Your task to perform on an android device: toggle priority inbox in the gmail app Image 0: 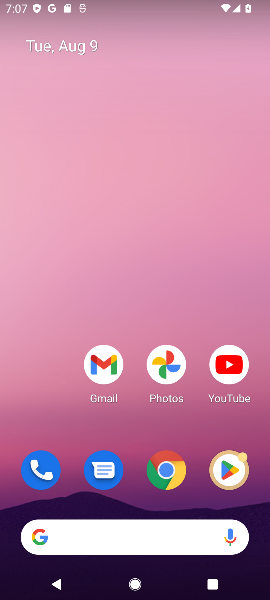
Step 0: click (101, 375)
Your task to perform on an android device: toggle priority inbox in the gmail app Image 1: 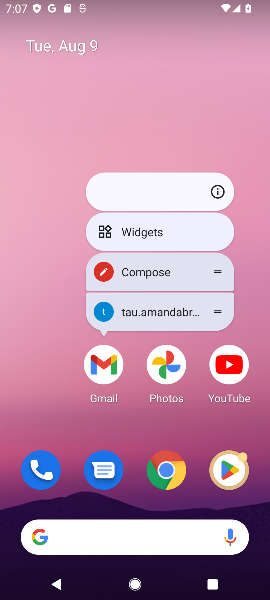
Step 1: click (101, 375)
Your task to perform on an android device: toggle priority inbox in the gmail app Image 2: 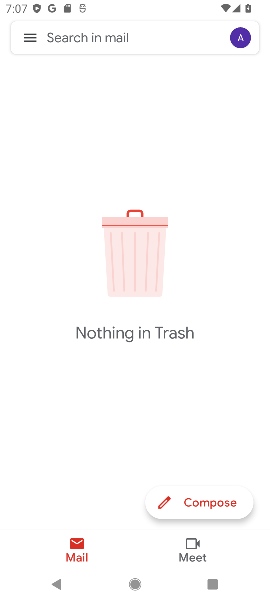
Step 2: click (36, 28)
Your task to perform on an android device: toggle priority inbox in the gmail app Image 3: 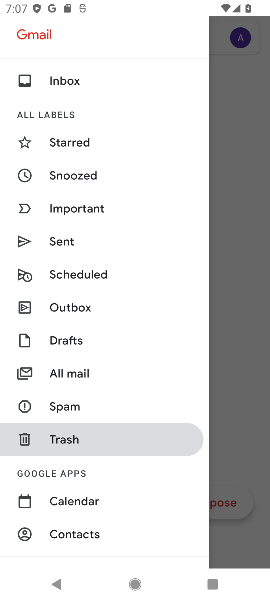
Step 3: drag from (111, 503) to (114, 229)
Your task to perform on an android device: toggle priority inbox in the gmail app Image 4: 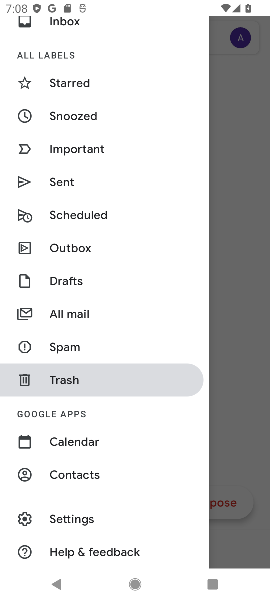
Step 4: click (47, 520)
Your task to perform on an android device: toggle priority inbox in the gmail app Image 5: 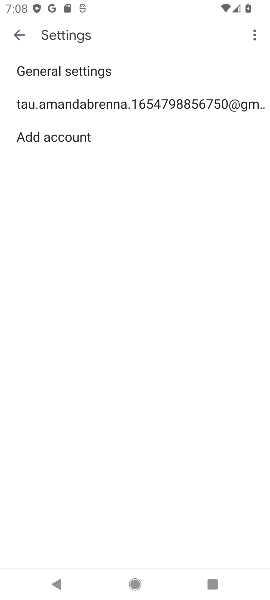
Step 5: click (183, 106)
Your task to perform on an android device: toggle priority inbox in the gmail app Image 6: 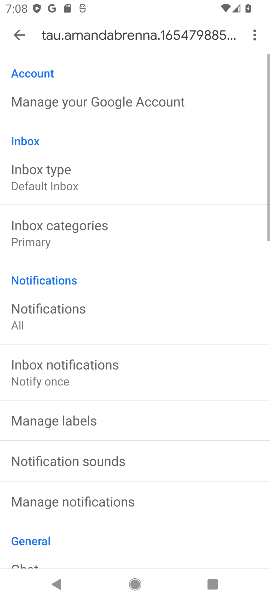
Step 6: click (70, 167)
Your task to perform on an android device: toggle priority inbox in the gmail app Image 7: 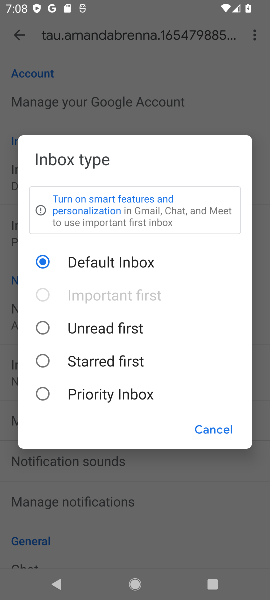
Step 7: click (123, 394)
Your task to perform on an android device: toggle priority inbox in the gmail app Image 8: 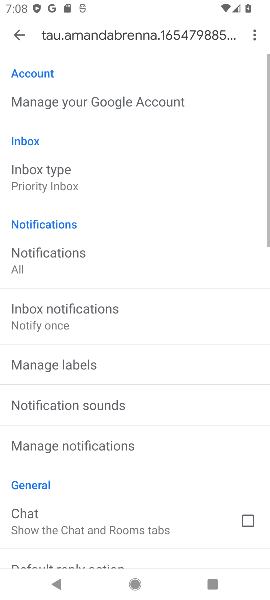
Step 8: task complete